Your task to perform on an android device: Is it going to rain tomorrow? Image 0: 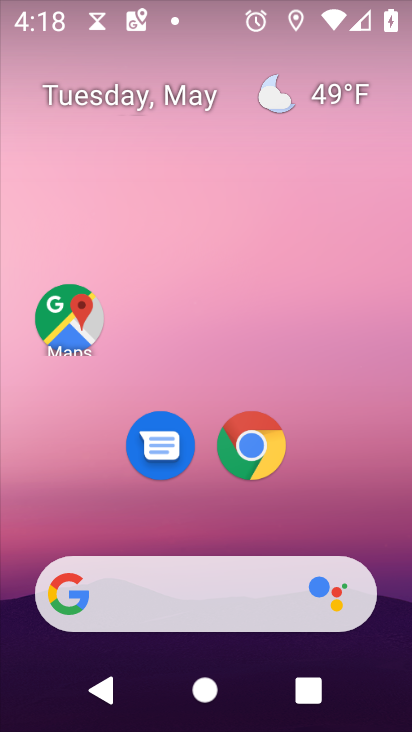
Step 0: drag from (263, 668) to (253, 5)
Your task to perform on an android device: Is it going to rain tomorrow? Image 1: 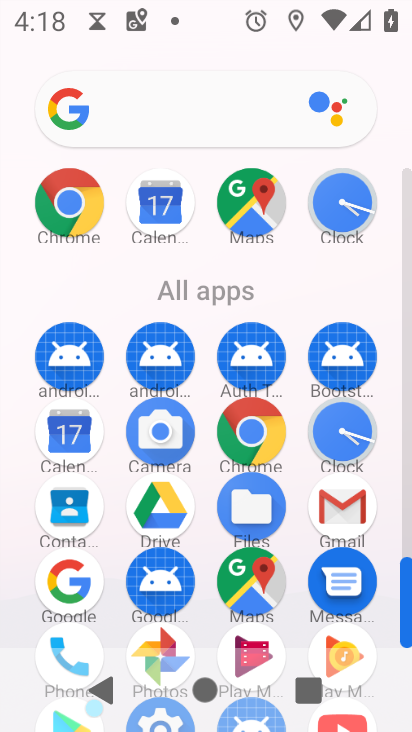
Step 1: press home button
Your task to perform on an android device: Is it going to rain tomorrow? Image 2: 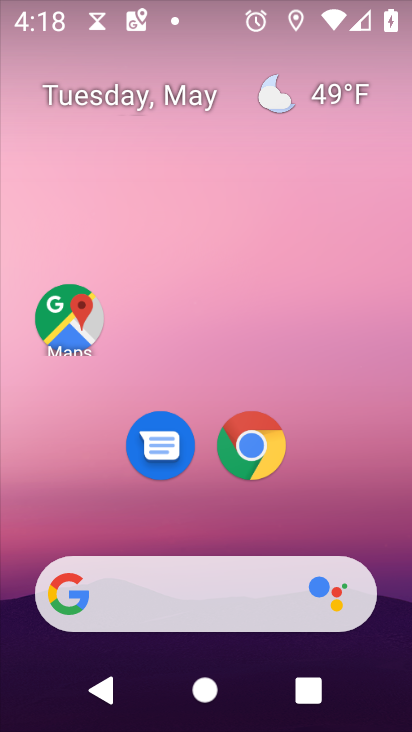
Step 2: drag from (9, 387) to (399, 393)
Your task to perform on an android device: Is it going to rain tomorrow? Image 3: 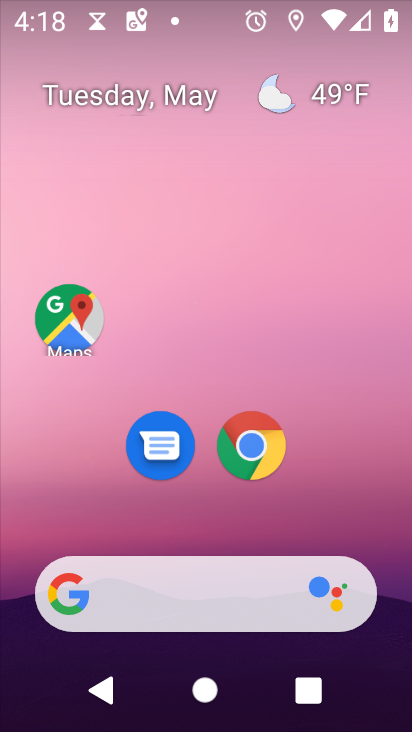
Step 3: drag from (50, 217) to (399, 201)
Your task to perform on an android device: Is it going to rain tomorrow? Image 4: 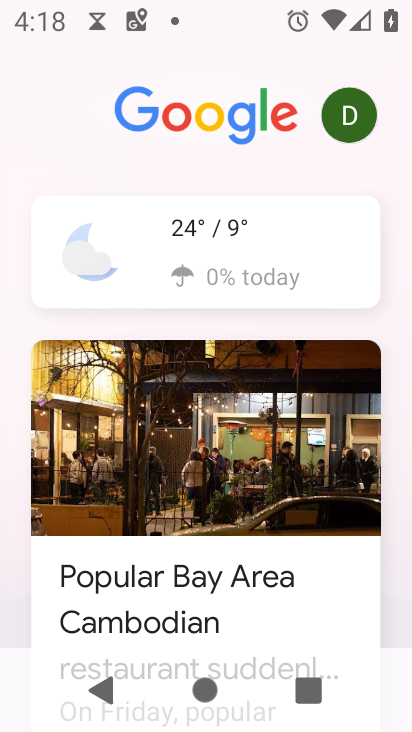
Step 4: click (229, 259)
Your task to perform on an android device: Is it going to rain tomorrow? Image 5: 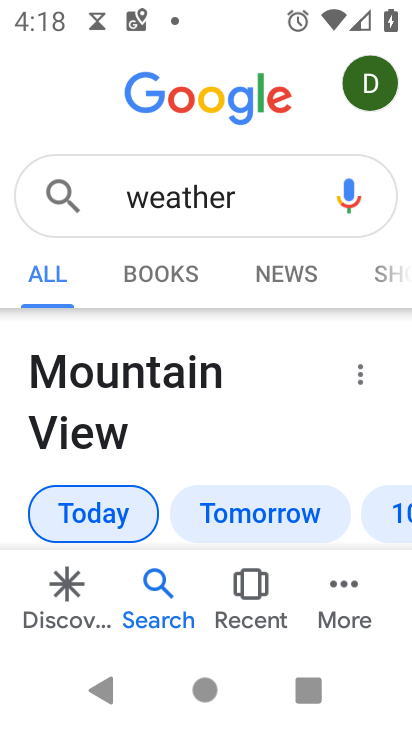
Step 5: click (237, 522)
Your task to perform on an android device: Is it going to rain tomorrow? Image 6: 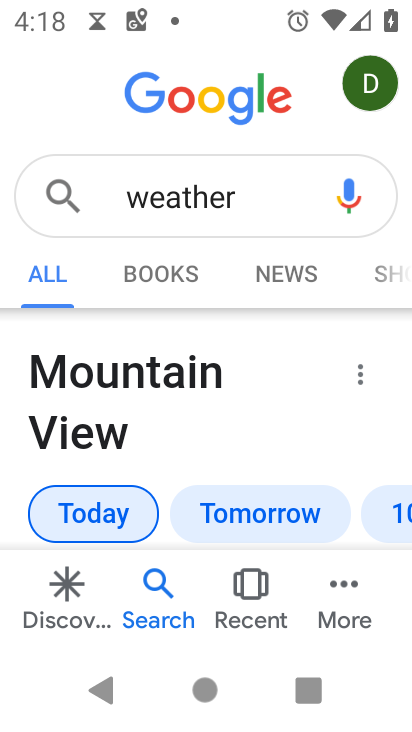
Step 6: click (232, 530)
Your task to perform on an android device: Is it going to rain tomorrow? Image 7: 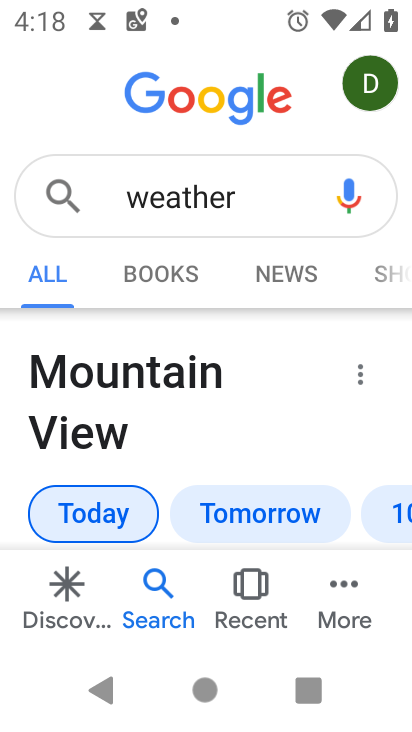
Step 7: task complete